Your task to perform on an android device: turn off wifi Image 0: 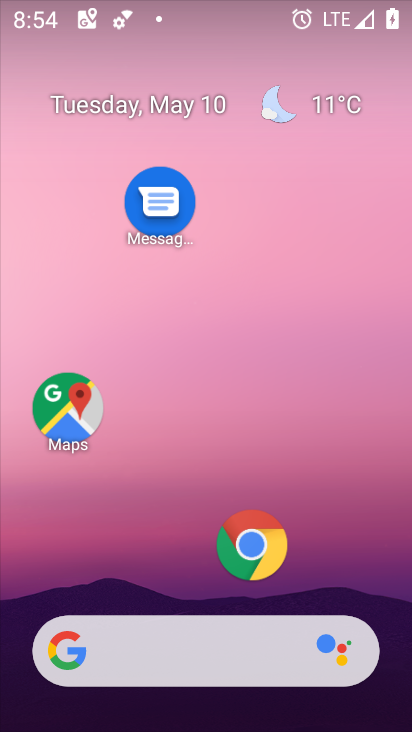
Step 0: drag from (157, 8) to (157, 557)
Your task to perform on an android device: turn off wifi Image 1: 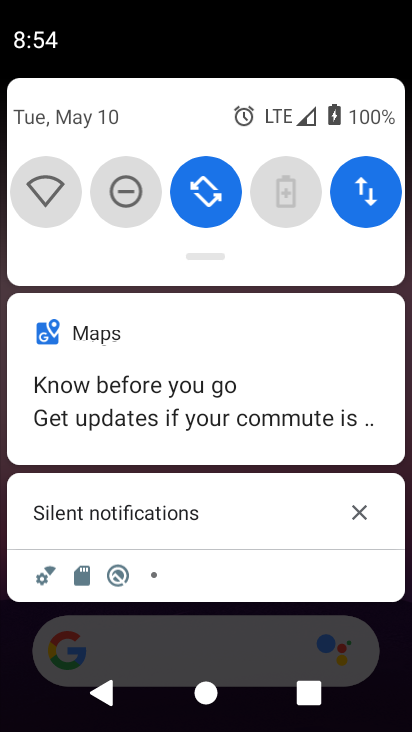
Step 1: task complete